Your task to perform on an android device: move a message to another label in the gmail app Image 0: 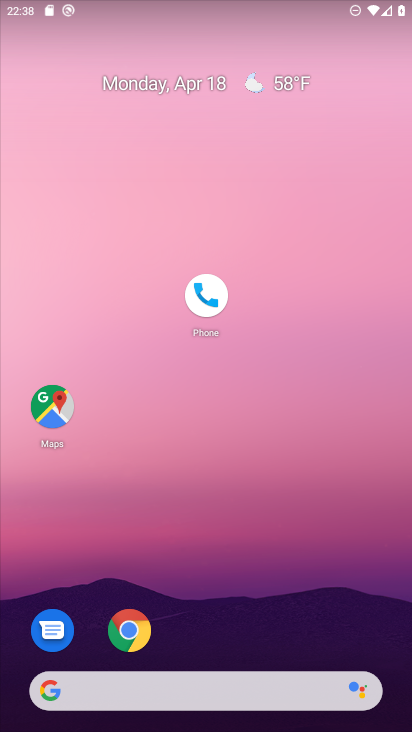
Step 0: drag from (262, 358) to (298, 76)
Your task to perform on an android device: move a message to another label in the gmail app Image 1: 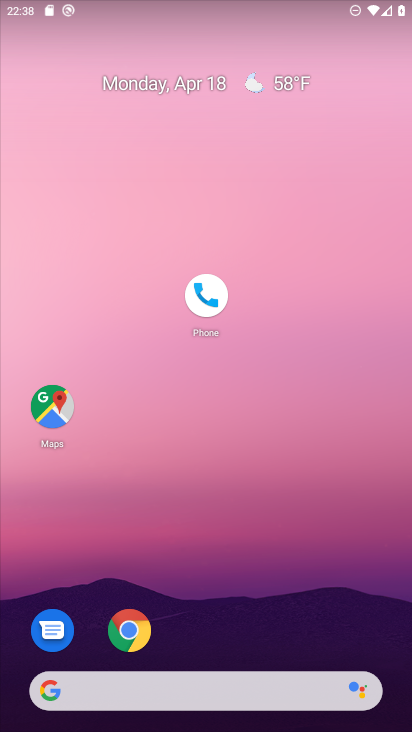
Step 1: drag from (277, 518) to (373, 200)
Your task to perform on an android device: move a message to another label in the gmail app Image 2: 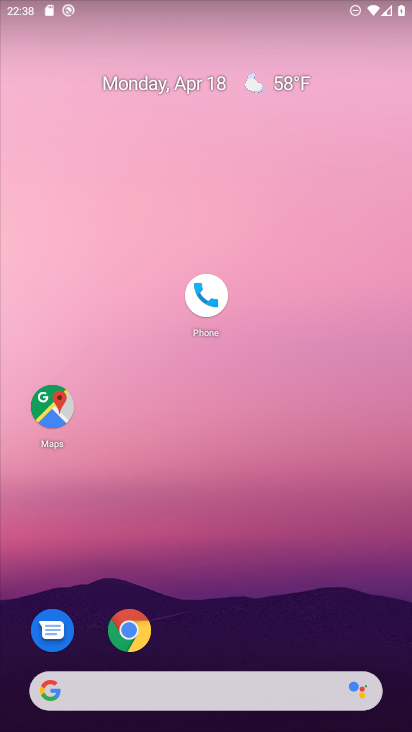
Step 2: drag from (260, 522) to (344, 0)
Your task to perform on an android device: move a message to another label in the gmail app Image 3: 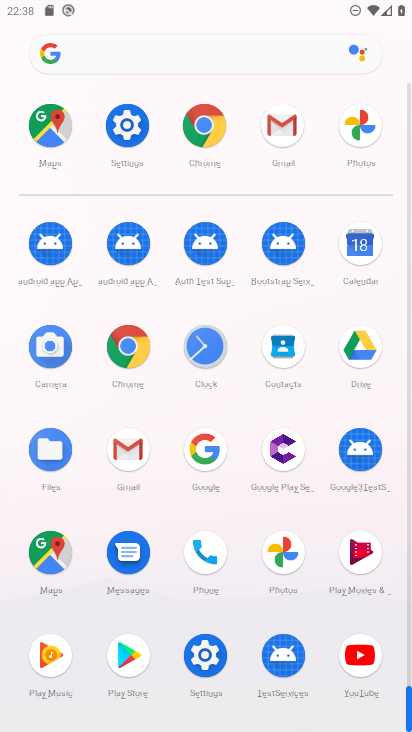
Step 3: click (292, 122)
Your task to perform on an android device: move a message to another label in the gmail app Image 4: 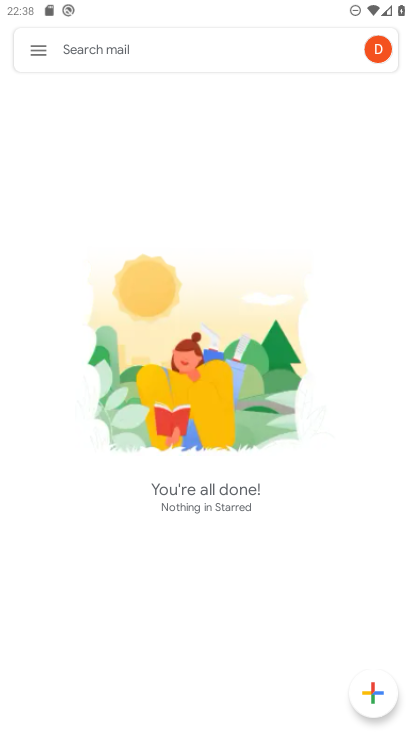
Step 4: click (23, 48)
Your task to perform on an android device: move a message to another label in the gmail app Image 5: 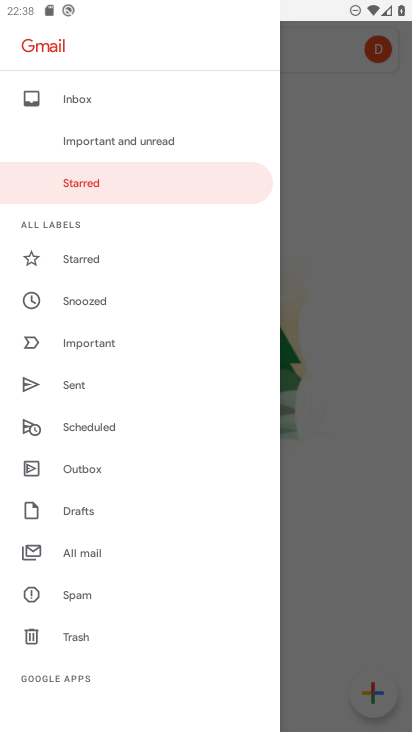
Step 5: click (93, 546)
Your task to perform on an android device: move a message to another label in the gmail app Image 6: 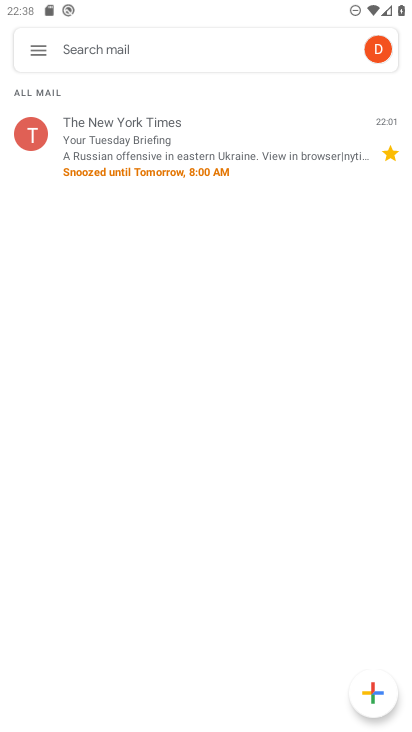
Step 6: click (286, 146)
Your task to perform on an android device: move a message to another label in the gmail app Image 7: 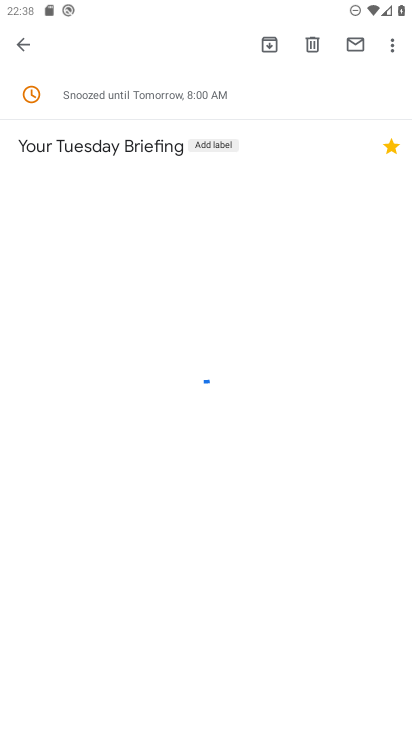
Step 7: click (25, 41)
Your task to perform on an android device: move a message to another label in the gmail app Image 8: 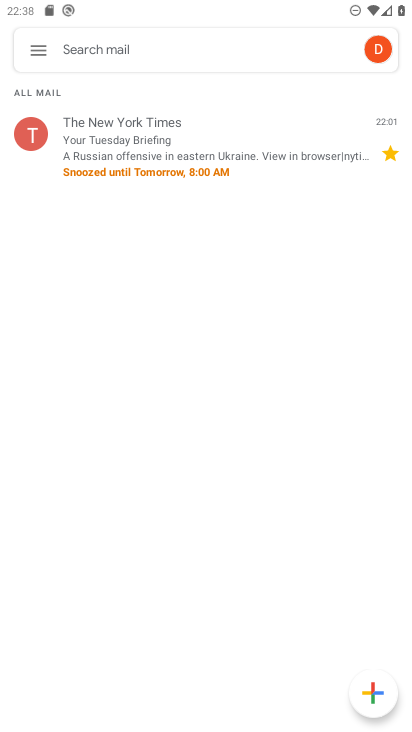
Step 8: click (241, 148)
Your task to perform on an android device: move a message to another label in the gmail app Image 9: 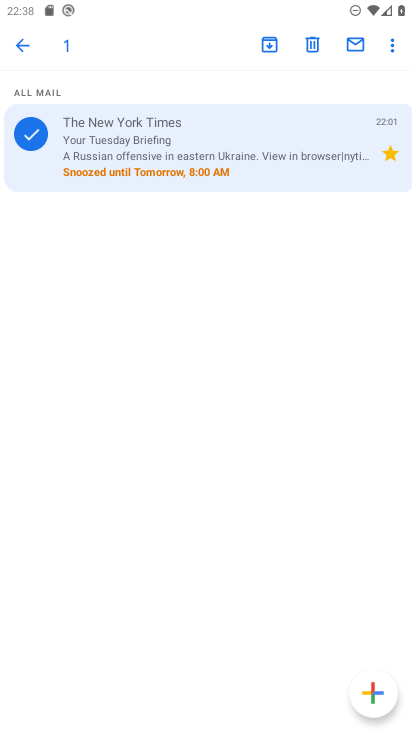
Step 9: click (263, 150)
Your task to perform on an android device: move a message to another label in the gmail app Image 10: 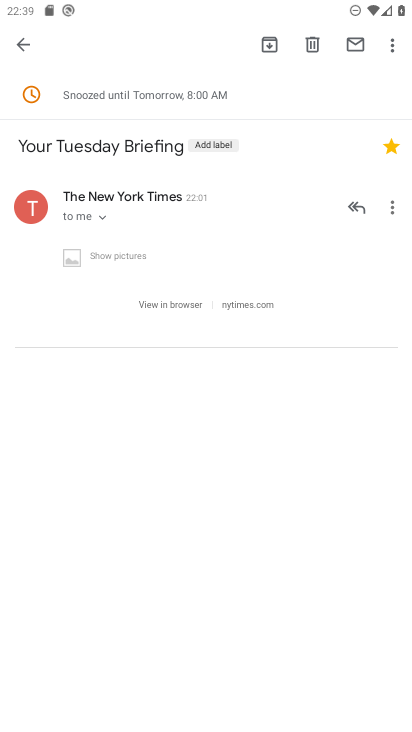
Step 10: click (394, 205)
Your task to perform on an android device: move a message to another label in the gmail app Image 11: 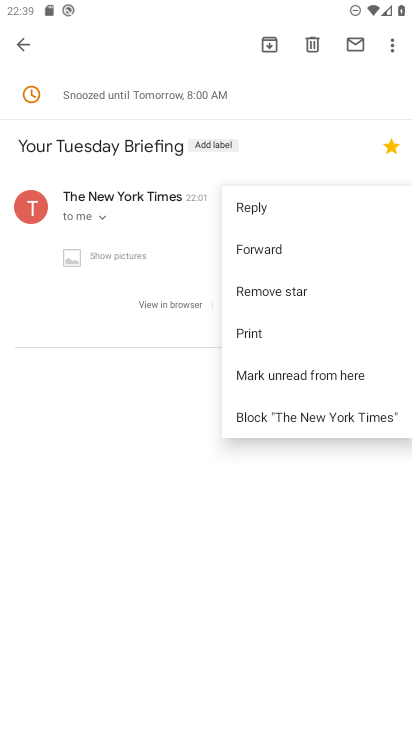
Step 11: click (106, 493)
Your task to perform on an android device: move a message to another label in the gmail app Image 12: 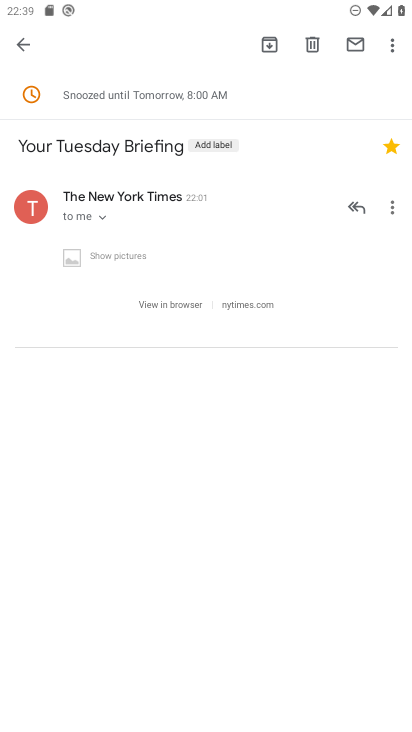
Step 12: click (24, 49)
Your task to perform on an android device: move a message to another label in the gmail app Image 13: 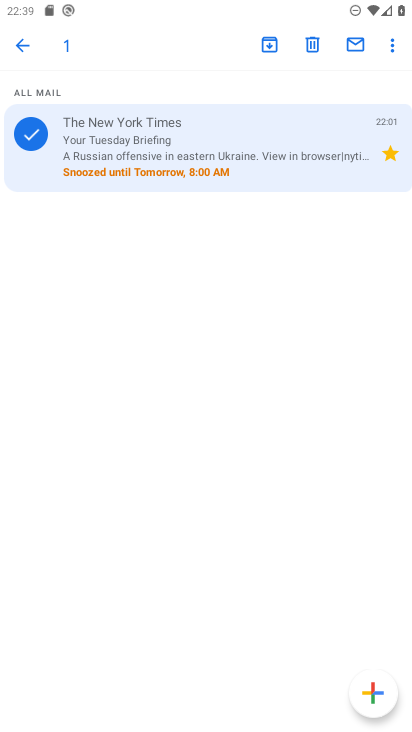
Step 13: click (223, 152)
Your task to perform on an android device: move a message to another label in the gmail app Image 14: 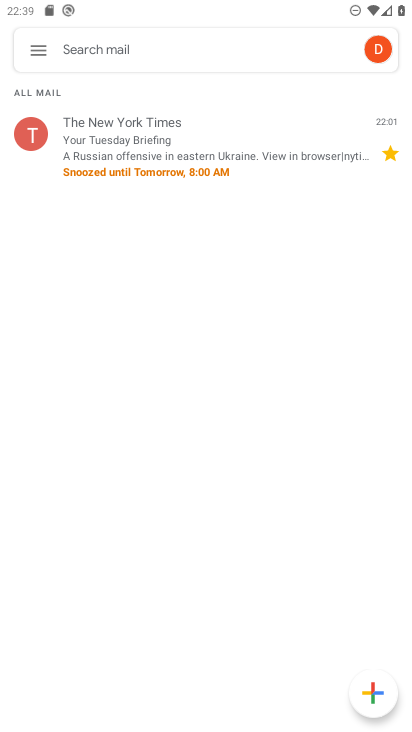
Step 14: click (300, 146)
Your task to perform on an android device: move a message to another label in the gmail app Image 15: 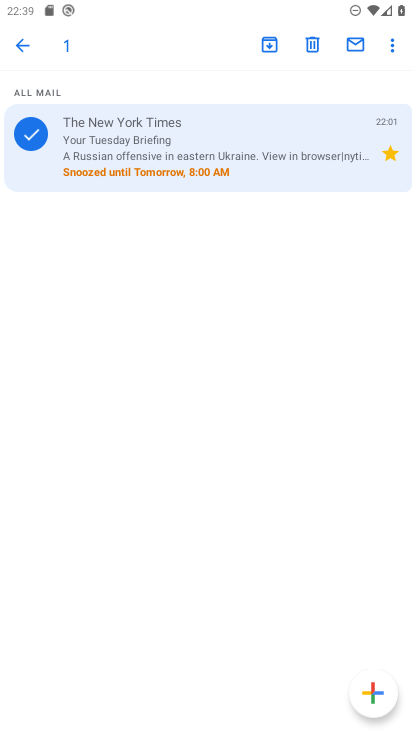
Step 15: click (392, 45)
Your task to perform on an android device: move a message to another label in the gmail app Image 16: 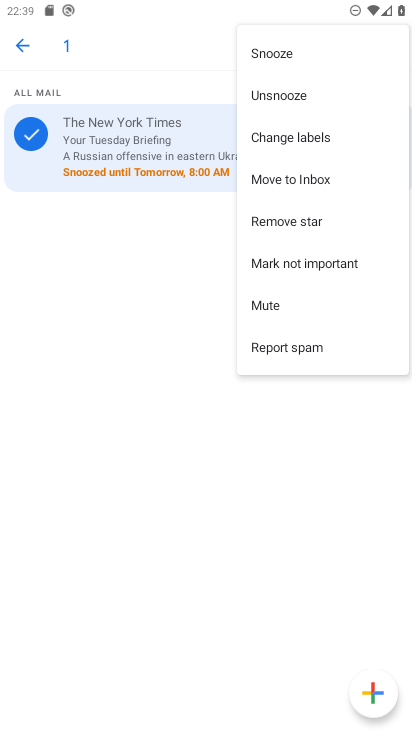
Step 16: click (294, 136)
Your task to perform on an android device: move a message to another label in the gmail app Image 17: 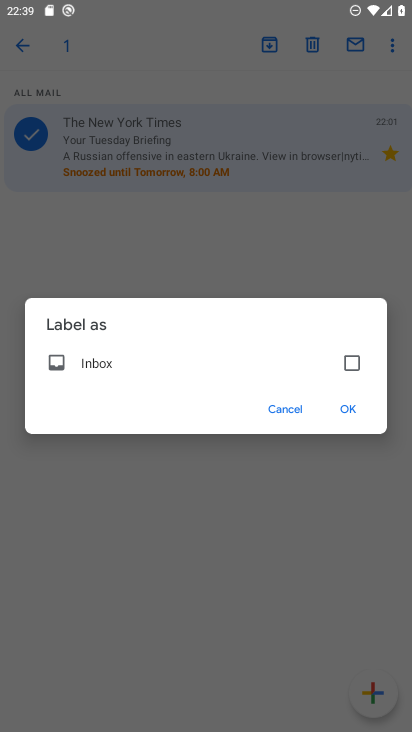
Step 17: click (358, 363)
Your task to perform on an android device: move a message to another label in the gmail app Image 18: 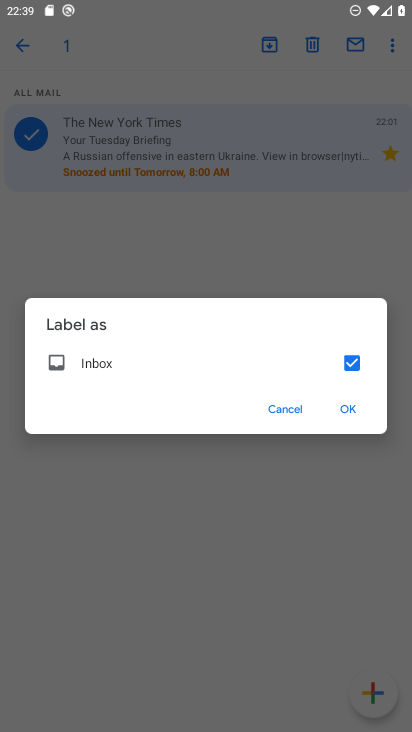
Step 18: click (344, 406)
Your task to perform on an android device: move a message to another label in the gmail app Image 19: 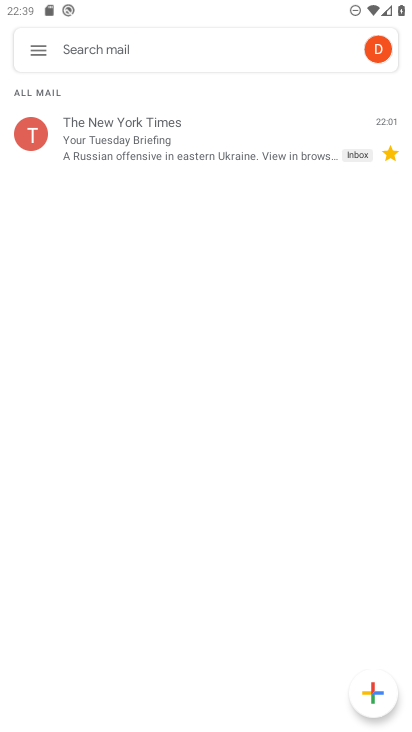
Step 19: task complete